Your task to perform on an android device: see creations saved in the google photos Image 0: 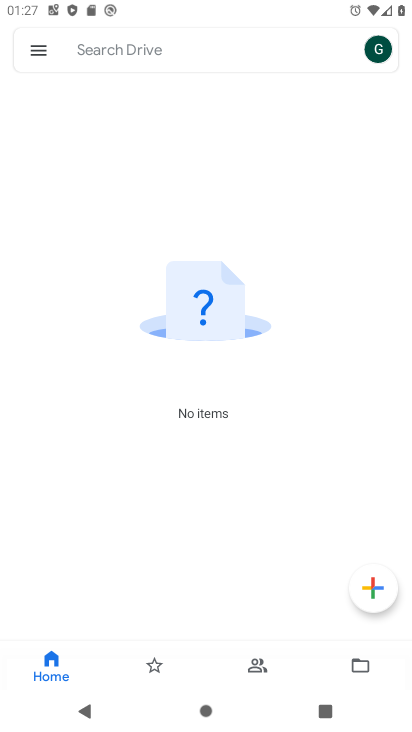
Step 0: press home button
Your task to perform on an android device: see creations saved in the google photos Image 1: 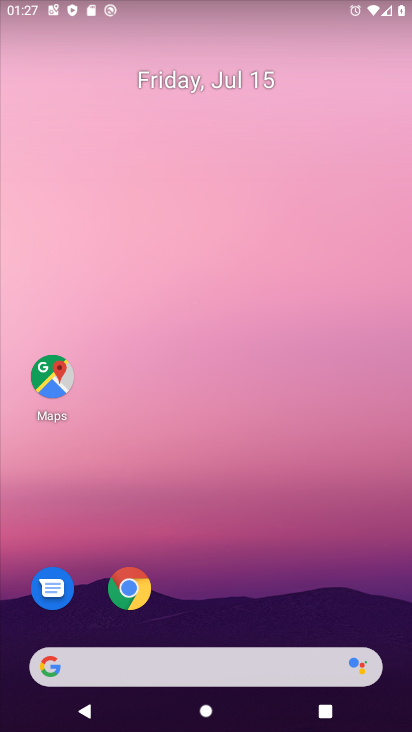
Step 1: drag from (395, 660) to (366, 86)
Your task to perform on an android device: see creations saved in the google photos Image 2: 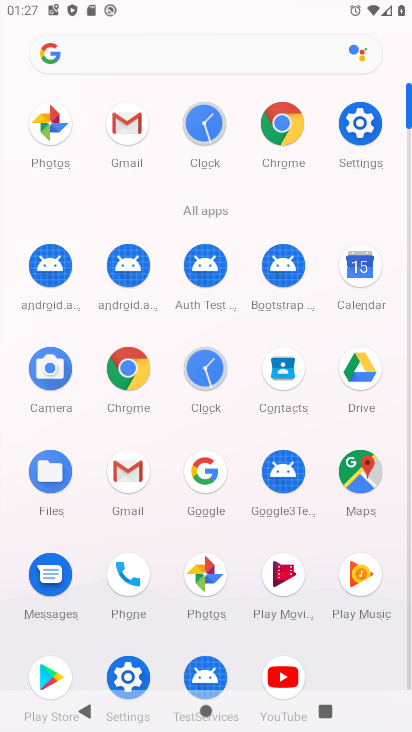
Step 2: click (205, 570)
Your task to perform on an android device: see creations saved in the google photos Image 3: 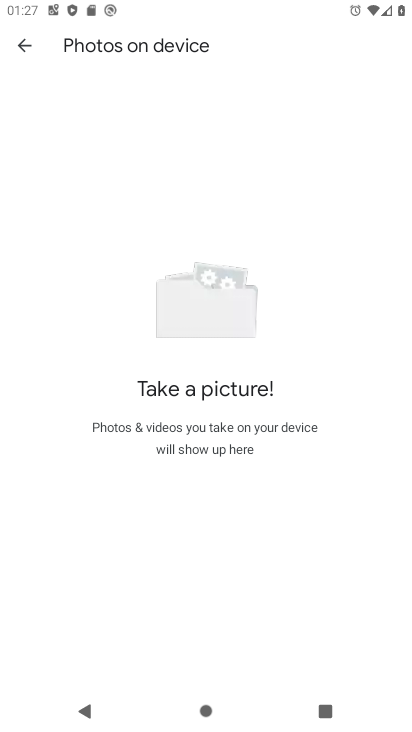
Step 3: task complete